Your task to perform on an android device: Go to Google maps Image 0: 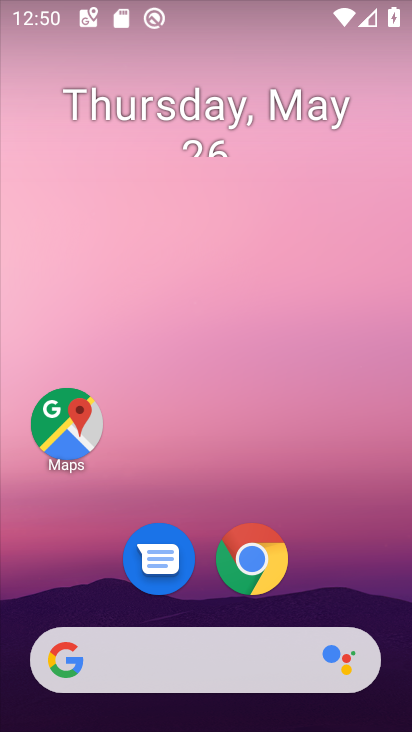
Step 0: press home button
Your task to perform on an android device: Go to Google maps Image 1: 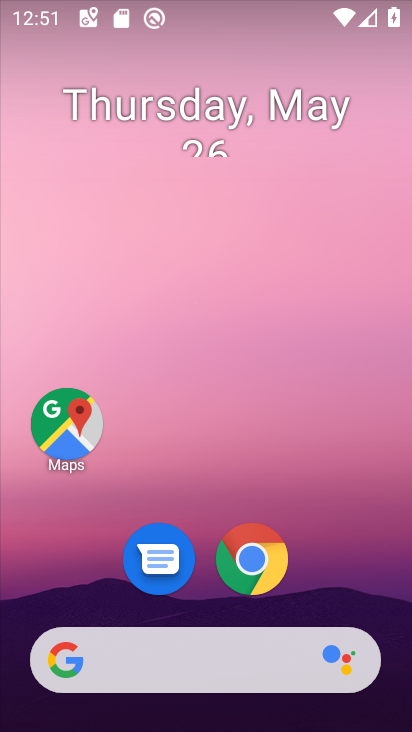
Step 1: click (79, 432)
Your task to perform on an android device: Go to Google maps Image 2: 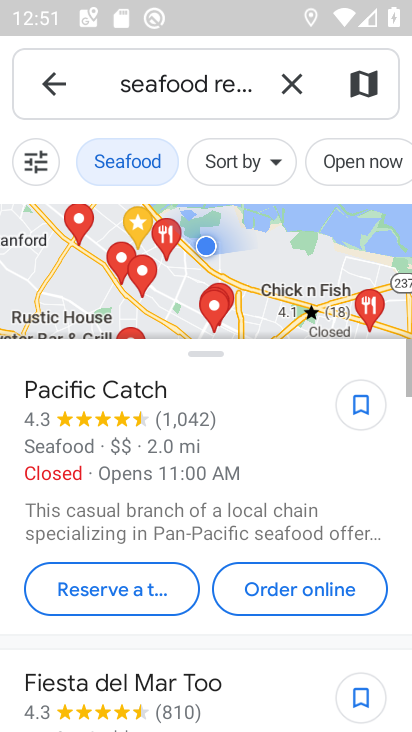
Step 2: click (293, 83)
Your task to perform on an android device: Go to Google maps Image 3: 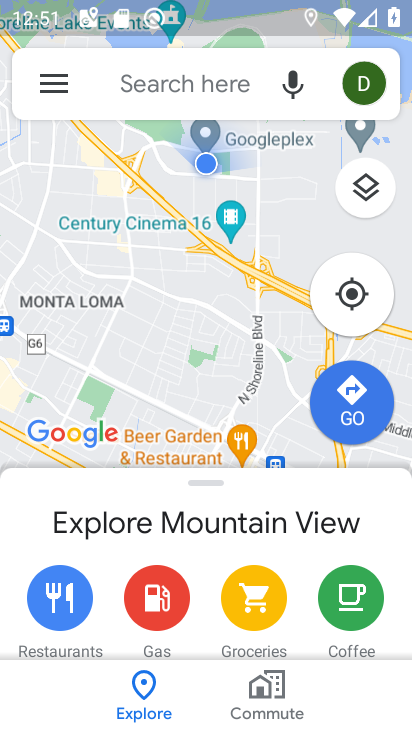
Step 3: task complete